Your task to perform on an android device: When is my next meeting? Image 0: 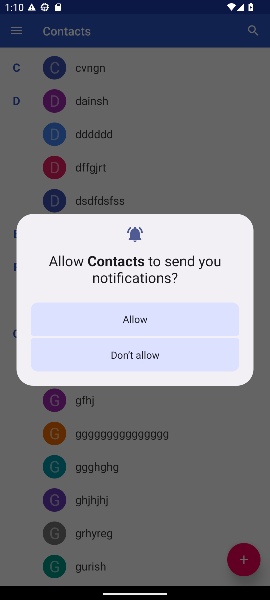
Step 0: press home button
Your task to perform on an android device: When is my next meeting? Image 1: 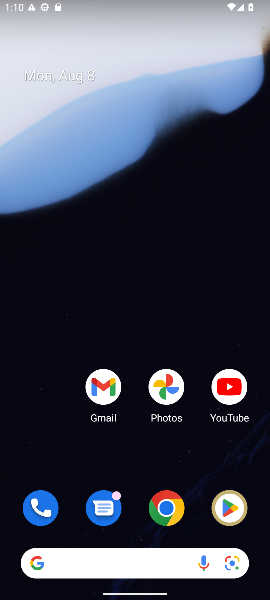
Step 1: drag from (125, 516) to (148, 24)
Your task to perform on an android device: When is my next meeting? Image 2: 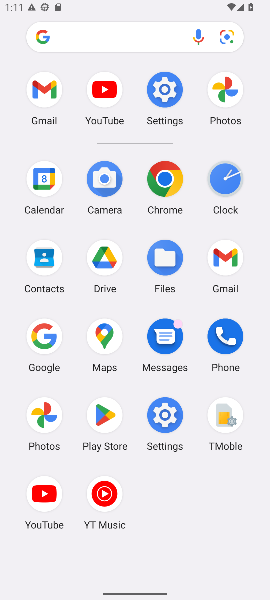
Step 2: click (37, 207)
Your task to perform on an android device: When is my next meeting? Image 3: 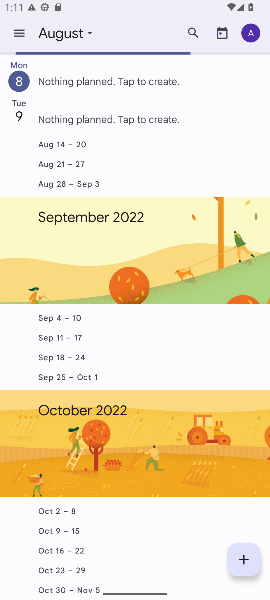
Step 3: click (37, 207)
Your task to perform on an android device: When is my next meeting? Image 4: 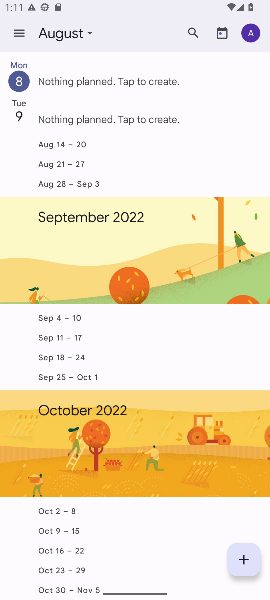
Step 4: click (53, 209)
Your task to perform on an android device: When is my next meeting? Image 5: 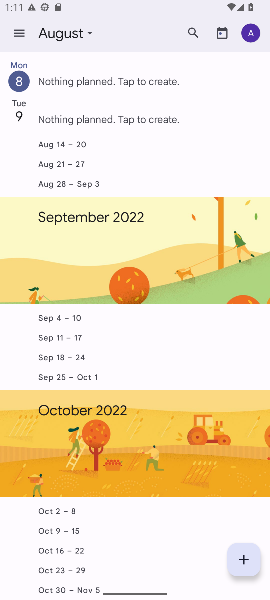
Step 5: click (178, 137)
Your task to perform on an android device: When is my next meeting? Image 6: 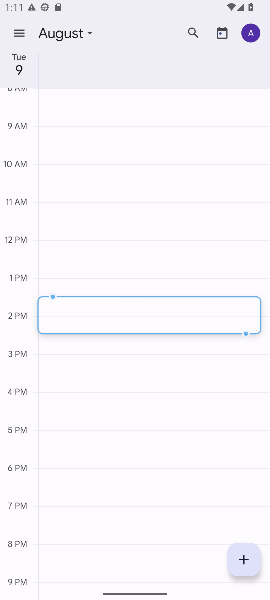
Step 6: task complete